Your task to perform on an android device: turn on wifi Image 0: 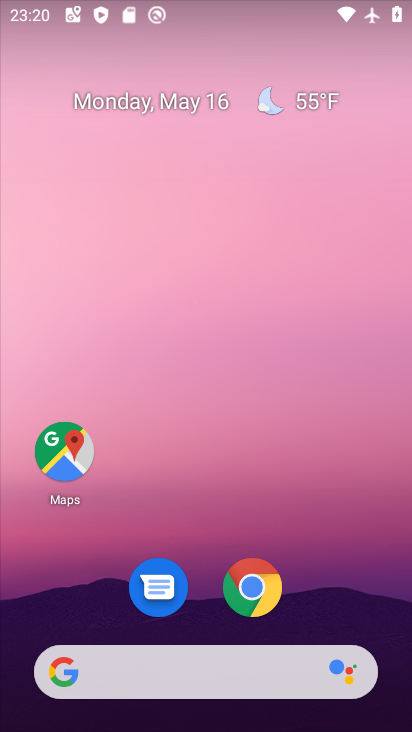
Step 0: drag from (279, 408) to (233, 72)
Your task to perform on an android device: turn on wifi Image 1: 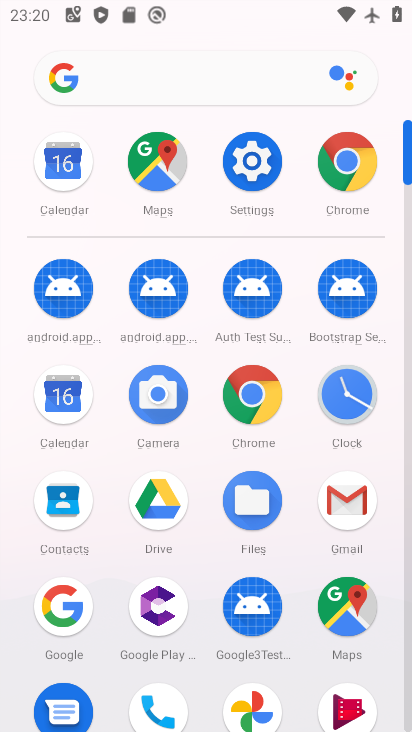
Step 1: click (249, 154)
Your task to perform on an android device: turn on wifi Image 2: 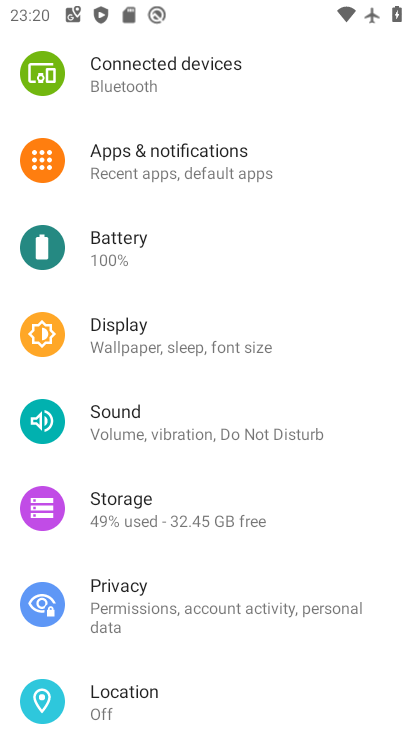
Step 2: drag from (267, 128) to (259, 542)
Your task to perform on an android device: turn on wifi Image 3: 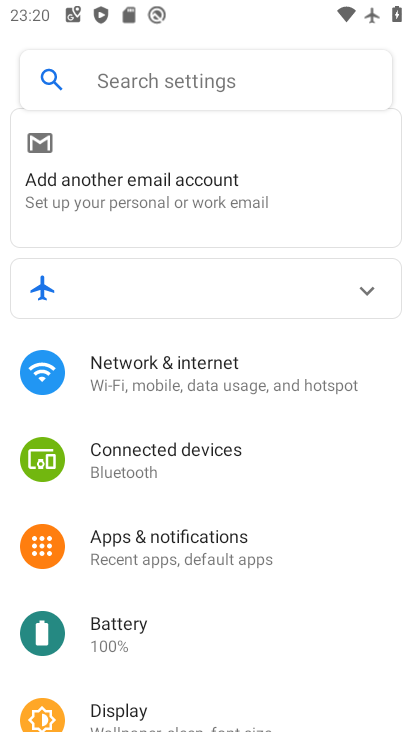
Step 3: click (218, 367)
Your task to perform on an android device: turn on wifi Image 4: 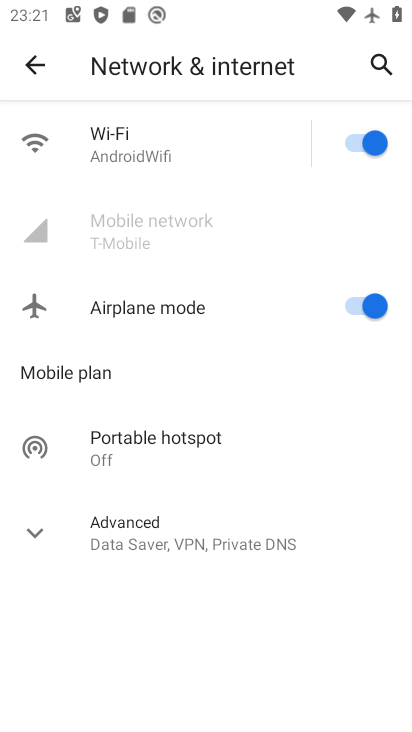
Step 4: task complete